Your task to perform on an android device: toggle show notifications on the lock screen Image 0: 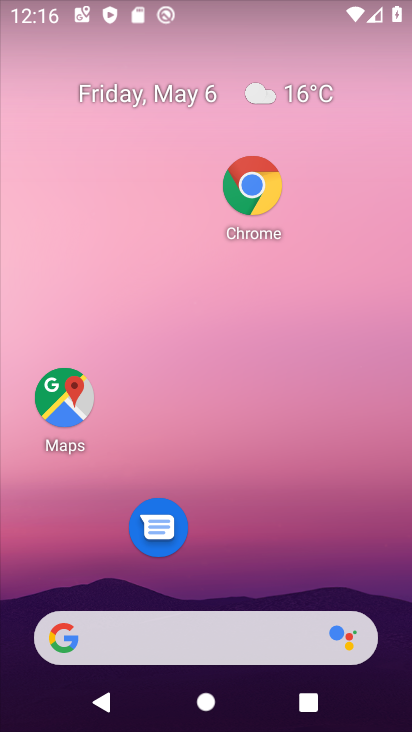
Step 0: drag from (229, 553) to (267, 13)
Your task to perform on an android device: toggle show notifications on the lock screen Image 1: 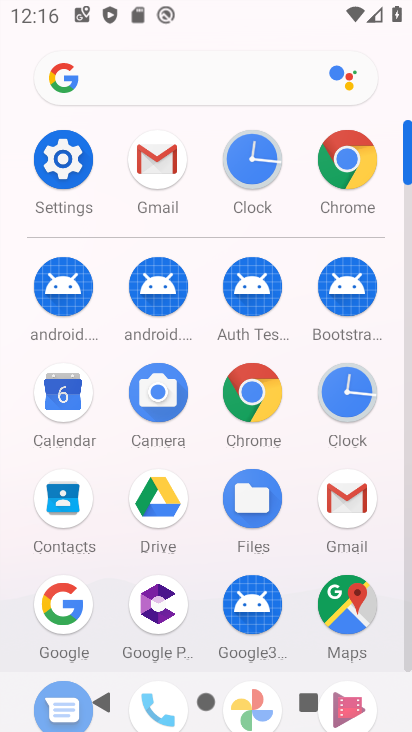
Step 1: click (57, 187)
Your task to perform on an android device: toggle show notifications on the lock screen Image 2: 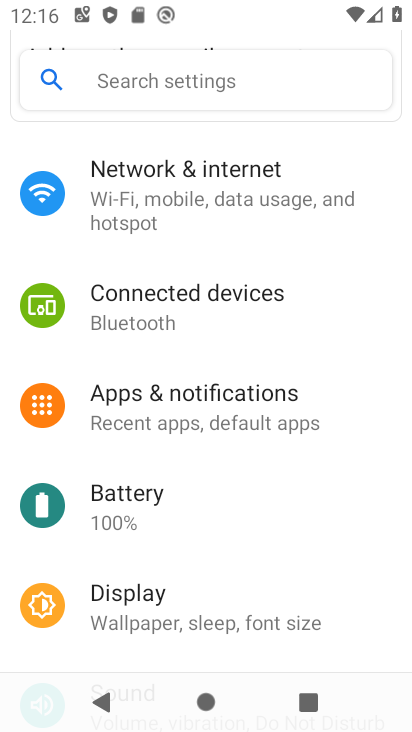
Step 2: click (242, 404)
Your task to perform on an android device: toggle show notifications on the lock screen Image 3: 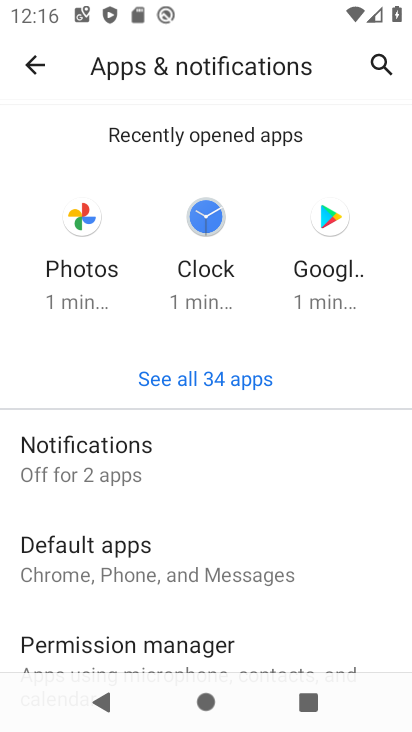
Step 3: drag from (131, 606) to (161, 410)
Your task to perform on an android device: toggle show notifications on the lock screen Image 4: 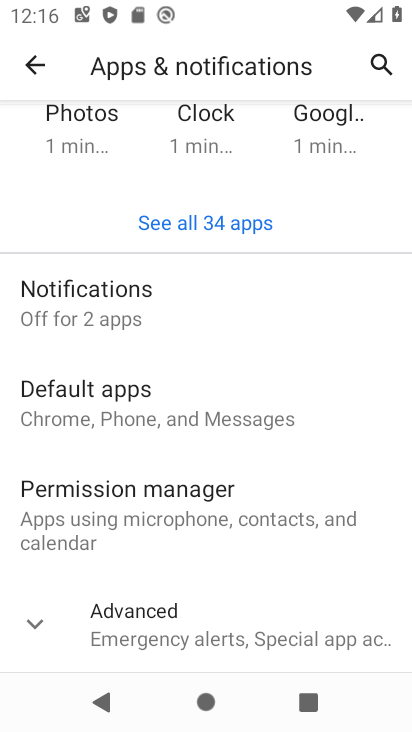
Step 4: click (103, 318)
Your task to perform on an android device: toggle show notifications on the lock screen Image 5: 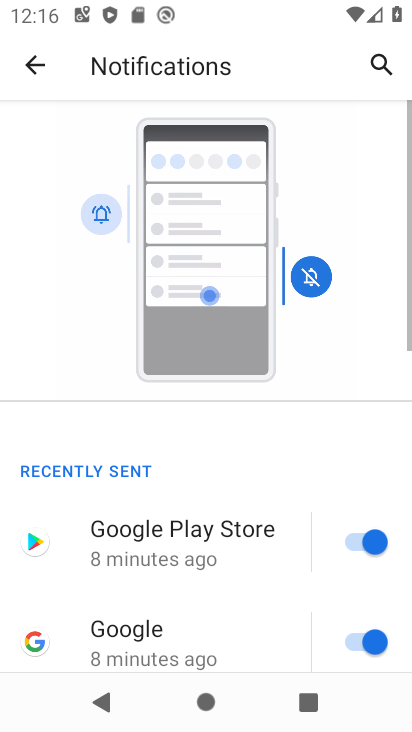
Step 5: drag from (210, 592) to (241, 121)
Your task to perform on an android device: toggle show notifications on the lock screen Image 6: 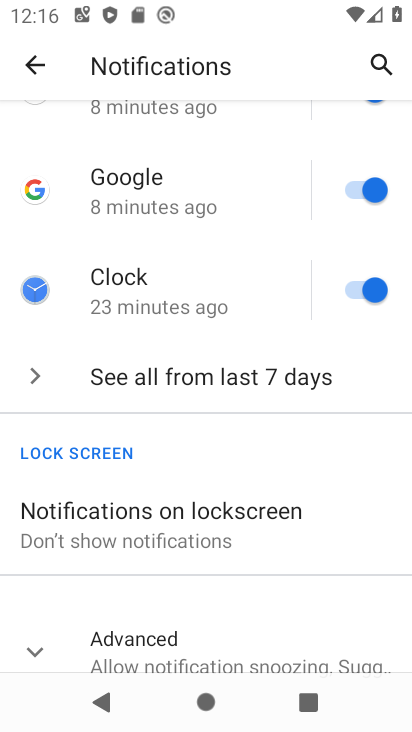
Step 6: drag from (143, 525) to (160, 318)
Your task to perform on an android device: toggle show notifications on the lock screen Image 7: 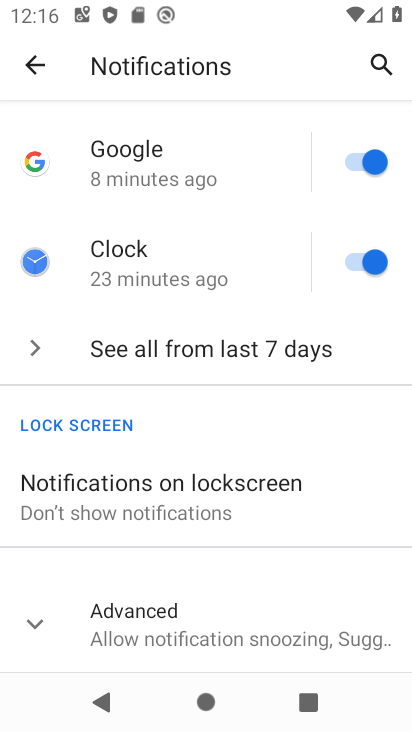
Step 7: click (105, 489)
Your task to perform on an android device: toggle show notifications on the lock screen Image 8: 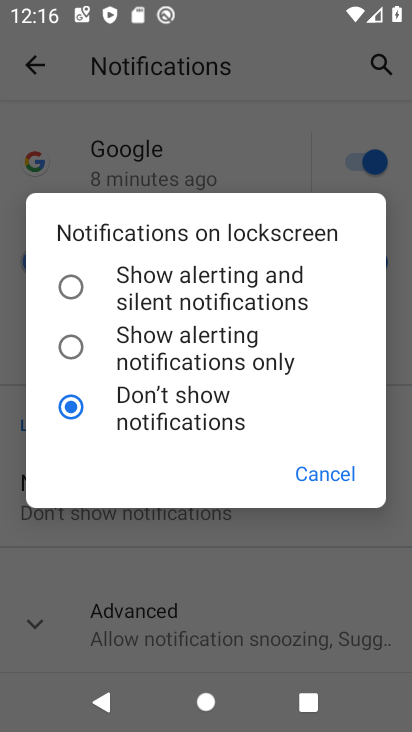
Step 8: click (65, 283)
Your task to perform on an android device: toggle show notifications on the lock screen Image 9: 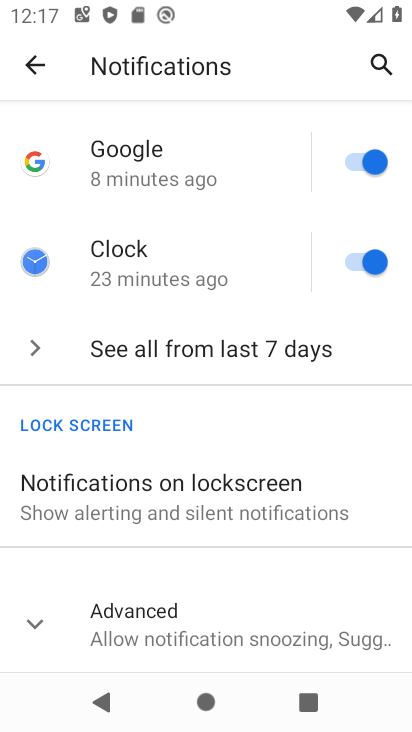
Step 9: task complete